Your task to perform on an android device: uninstall "Speedtest by Ookla" Image 0: 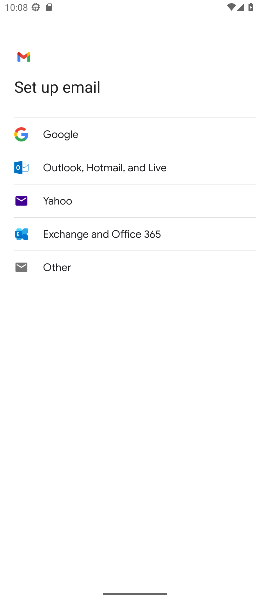
Step 0: press home button
Your task to perform on an android device: uninstall "Speedtest by Ookla" Image 1: 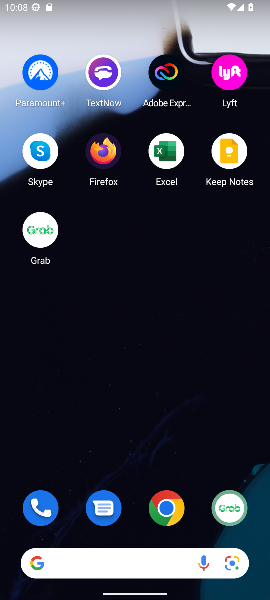
Step 1: drag from (129, 347) to (124, 41)
Your task to perform on an android device: uninstall "Speedtest by Ookla" Image 2: 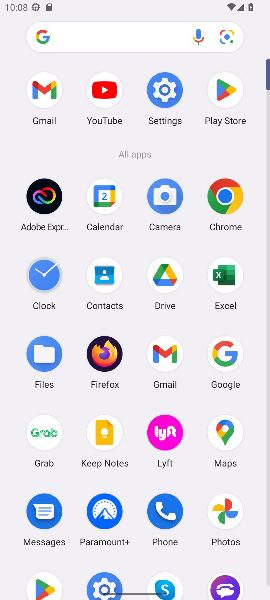
Step 2: click (233, 97)
Your task to perform on an android device: uninstall "Speedtest by Ookla" Image 3: 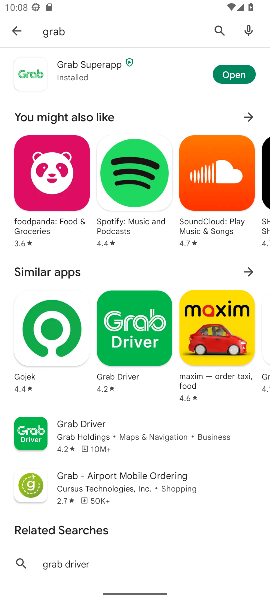
Step 3: click (221, 27)
Your task to perform on an android device: uninstall "Speedtest by Ookla" Image 4: 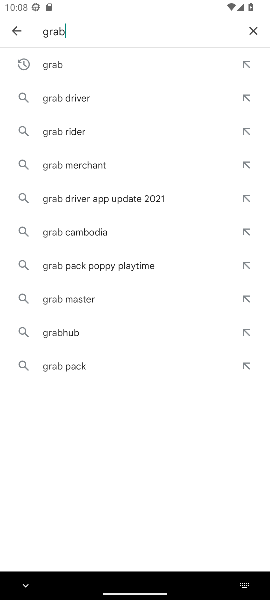
Step 4: click (254, 30)
Your task to perform on an android device: uninstall "Speedtest by Ookla" Image 5: 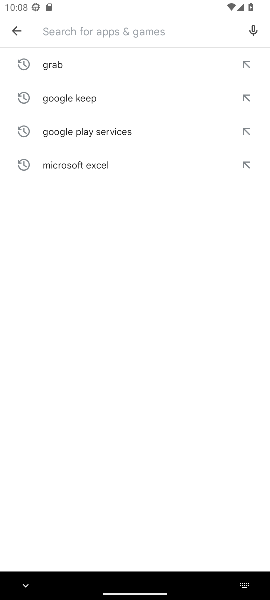
Step 5: type "Speedtest by Ookla"
Your task to perform on an android device: uninstall "Speedtest by Ookla" Image 6: 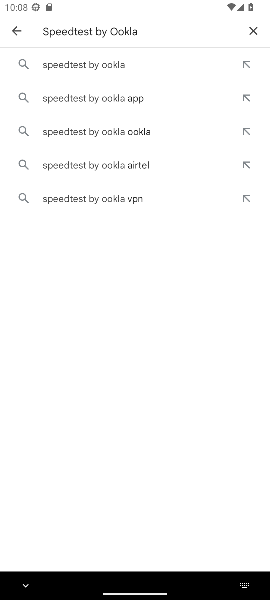
Step 6: click (73, 74)
Your task to perform on an android device: uninstall "Speedtest by Ookla" Image 7: 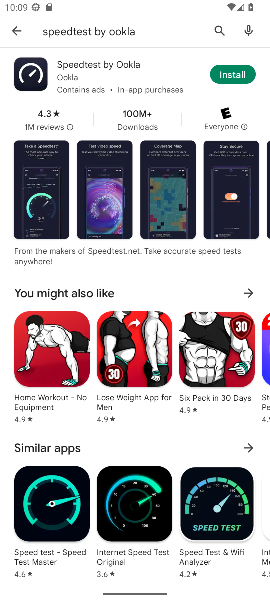
Step 7: task complete